Your task to perform on an android device: Open calendar and show me the fourth week of next month Image 0: 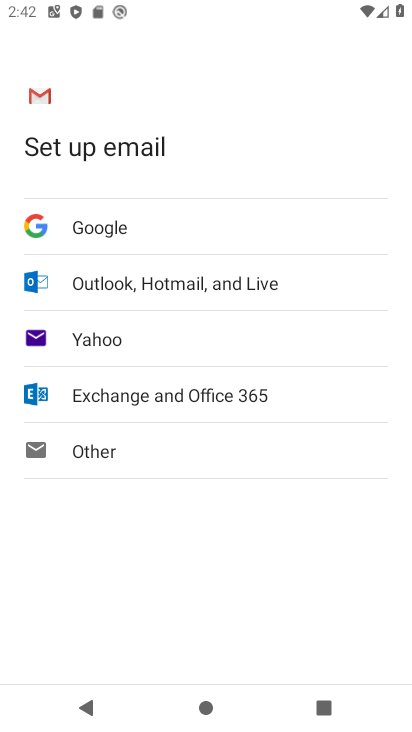
Step 0: press home button
Your task to perform on an android device: Open calendar and show me the fourth week of next month Image 1: 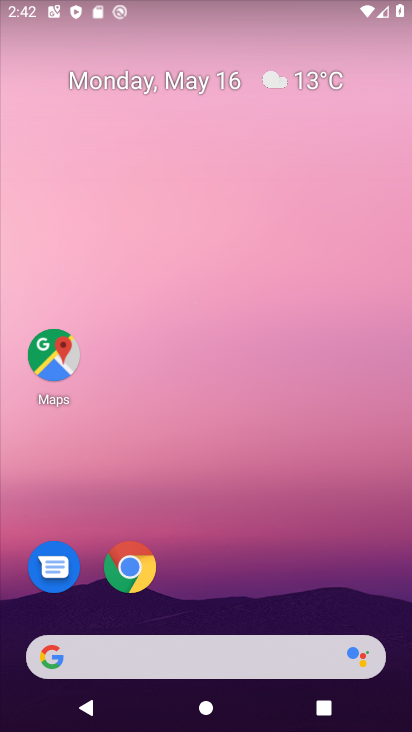
Step 1: drag from (251, 592) to (276, 38)
Your task to perform on an android device: Open calendar and show me the fourth week of next month Image 2: 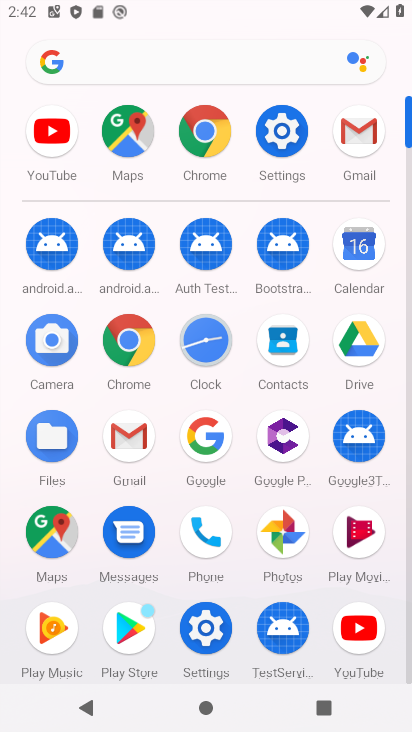
Step 2: click (360, 243)
Your task to perform on an android device: Open calendar and show me the fourth week of next month Image 3: 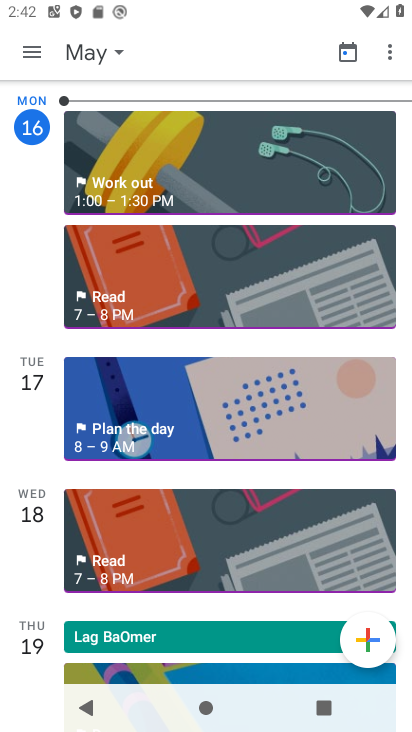
Step 3: click (82, 57)
Your task to perform on an android device: Open calendar and show me the fourth week of next month Image 4: 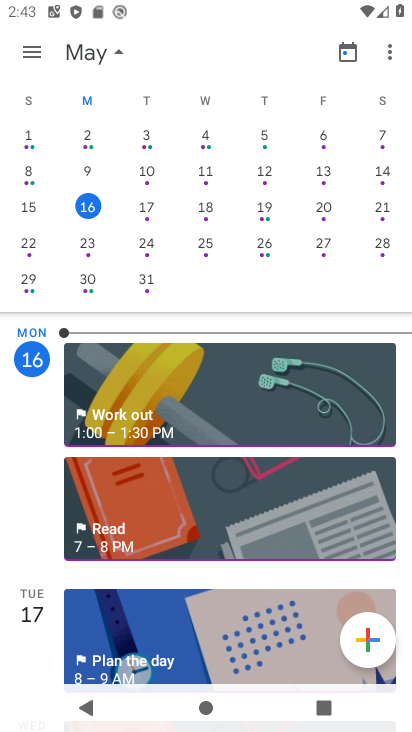
Step 4: drag from (315, 185) to (5, 208)
Your task to perform on an android device: Open calendar and show me the fourth week of next month Image 5: 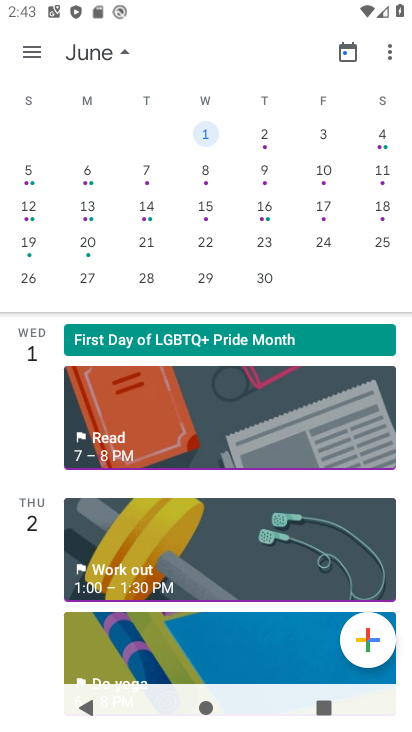
Step 5: click (32, 276)
Your task to perform on an android device: Open calendar and show me the fourth week of next month Image 6: 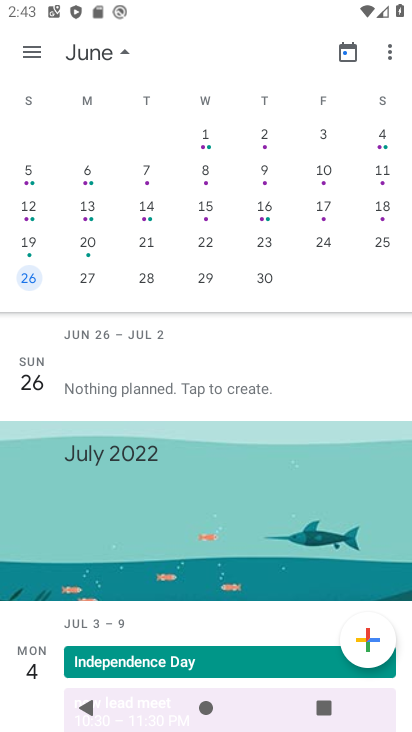
Step 6: task complete